Your task to perform on an android device: add a contact Image 0: 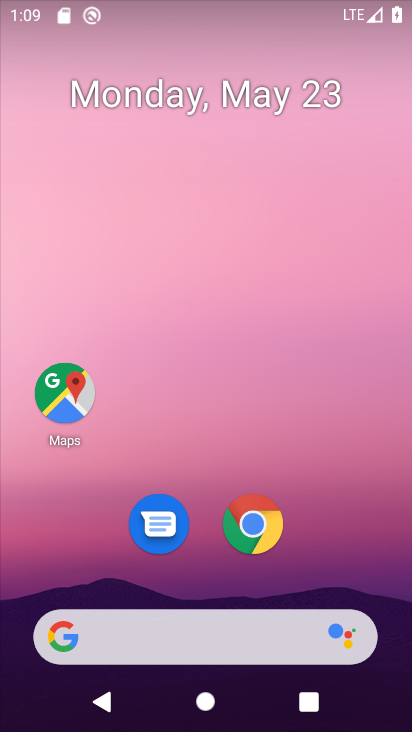
Step 0: drag from (227, 414) to (251, 27)
Your task to perform on an android device: add a contact Image 1: 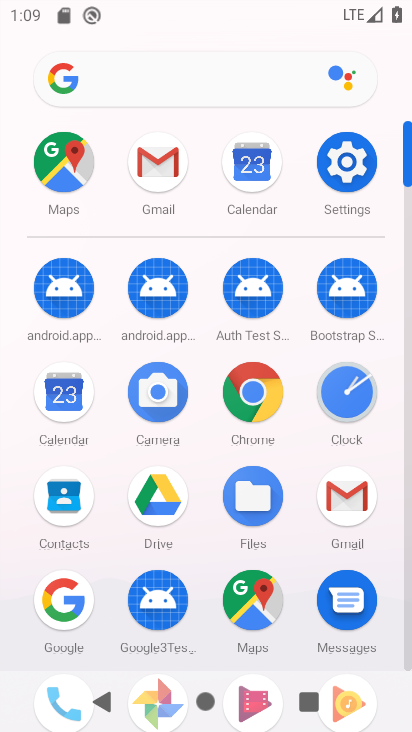
Step 1: click (73, 495)
Your task to perform on an android device: add a contact Image 2: 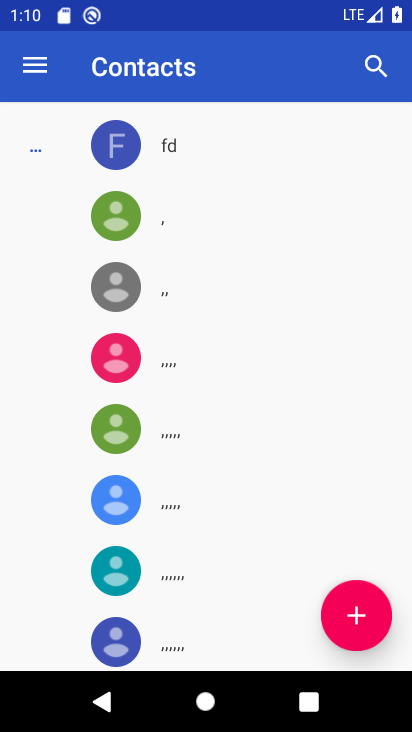
Step 2: click (349, 618)
Your task to perform on an android device: add a contact Image 3: 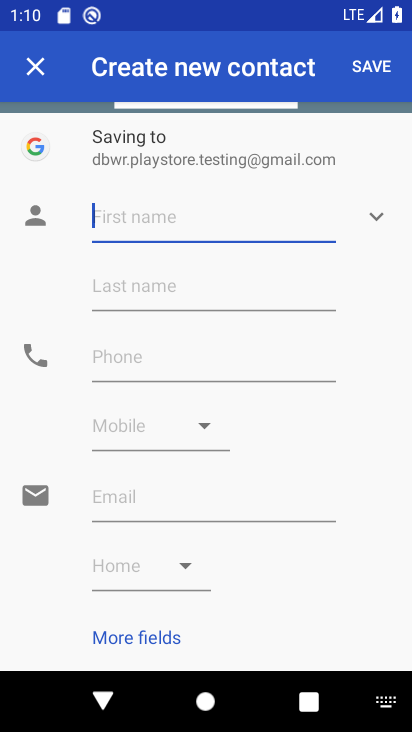
Step 3: type "Abu"
Your task to perform on an android device: add a contact Image 4: 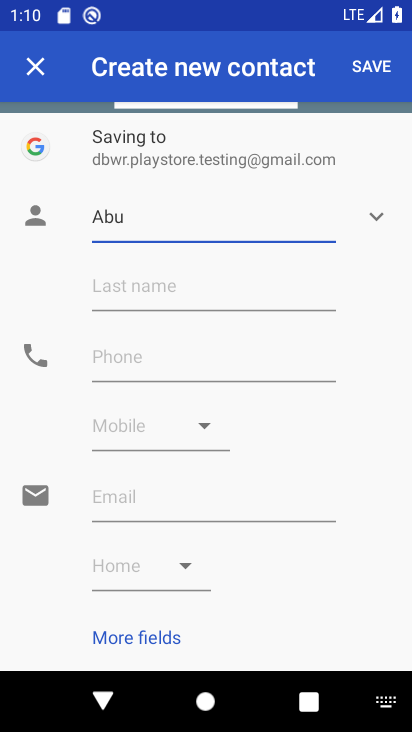
Step 4: click (247, 362)
Your task to perform on an android device: add a contact Image 5: 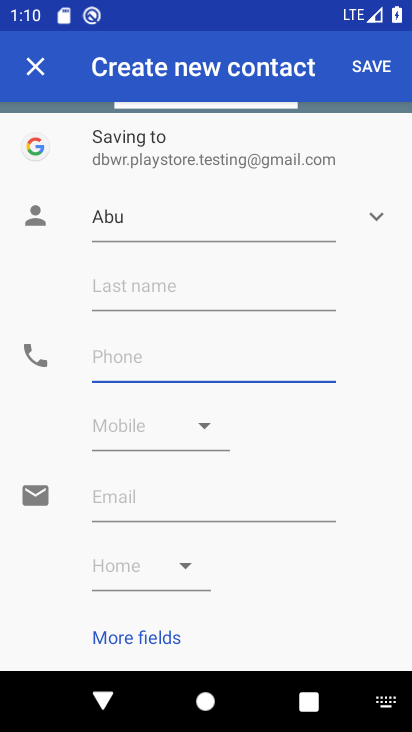
Step 5: type "0115557776644"
Your task to perform on an android device: add a contact Image 6: 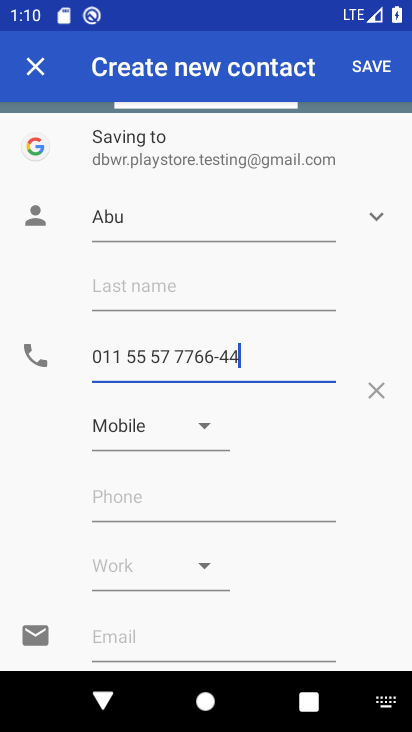
Step 6: click (371, 61)
Your task to perform on an android device: add a contact Image 7: 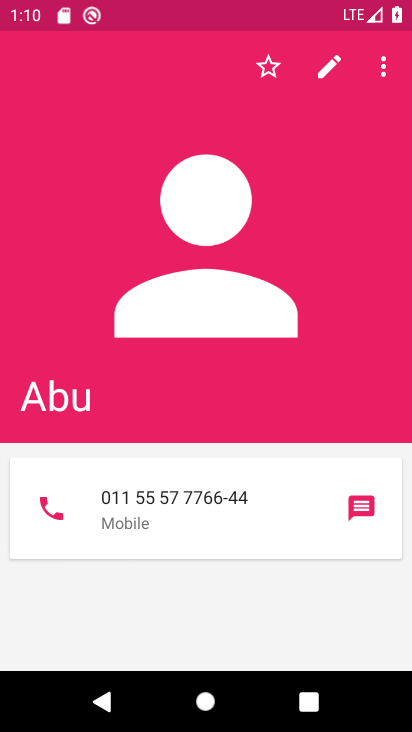
Step 7: task complete